Your task to perform on an android device: Open the Play Movies app and select the watchlist tab. Image 0: 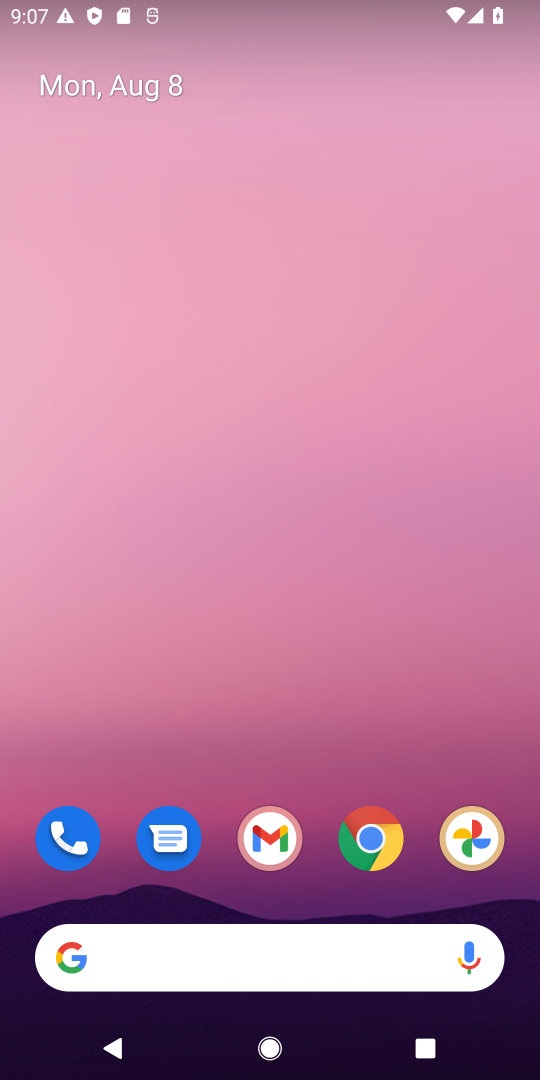
Step 0: press home button
Your task to perform on an android device: Open the Play Movies app and select the watchlist tab. Image 1: 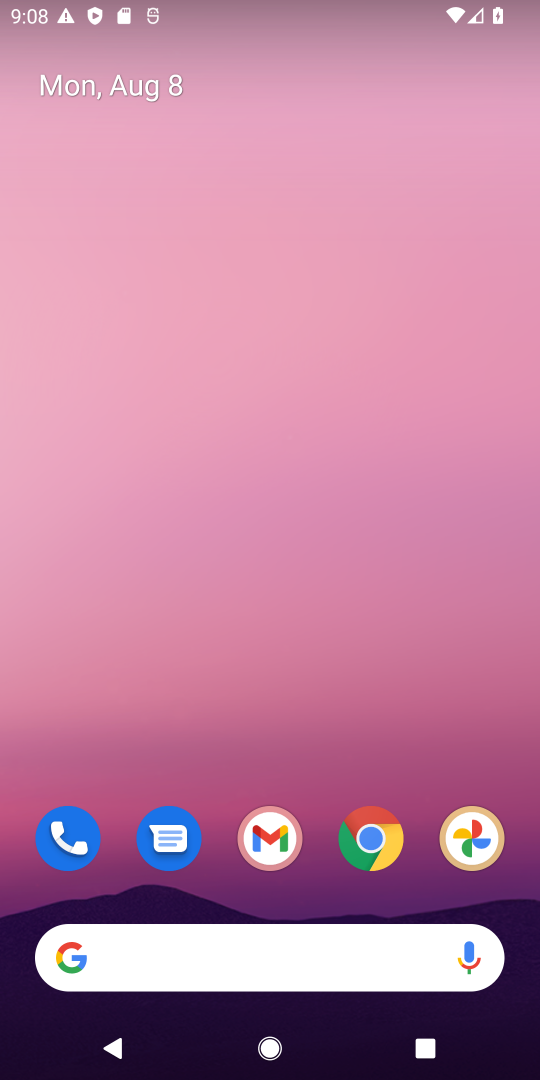
Step 1: task complete